Your task to perform on an android device: change the clock display to digital Image 0: 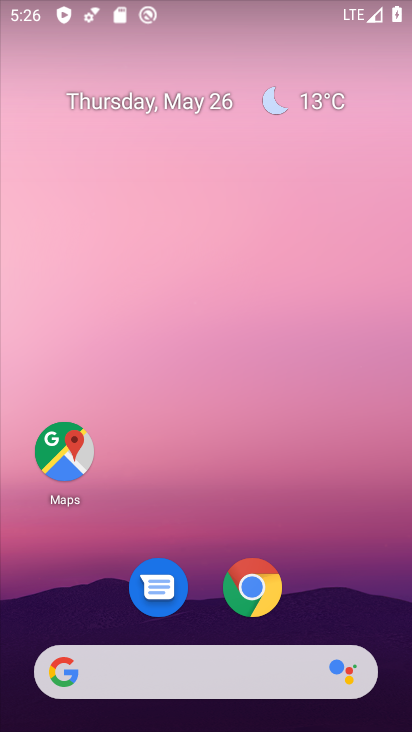
Step 0: drag from (240, 702) to (240, 43)
Your task to perform on an android device: change the clock display to digital Image 1: 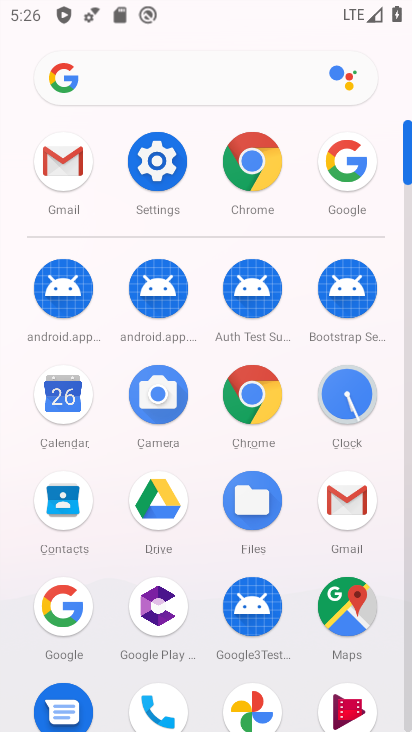
Step 1: click (355, 393)
Your task to perform on an android device: change the clock display to digital Image 2: 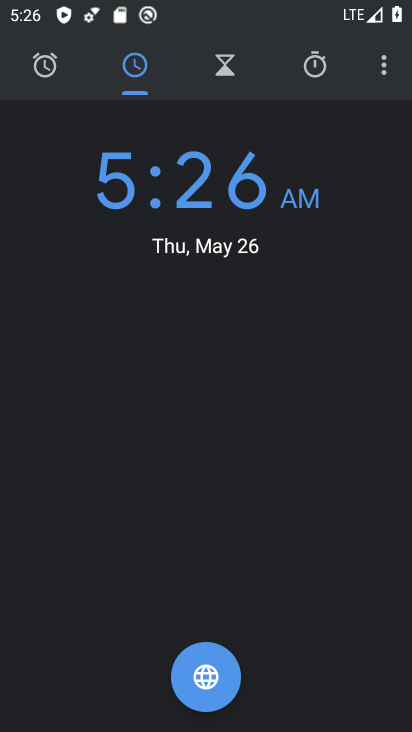
Step 2: click (385, 77)
Your task to perform on an android device: change the clock display to digital Image 3: 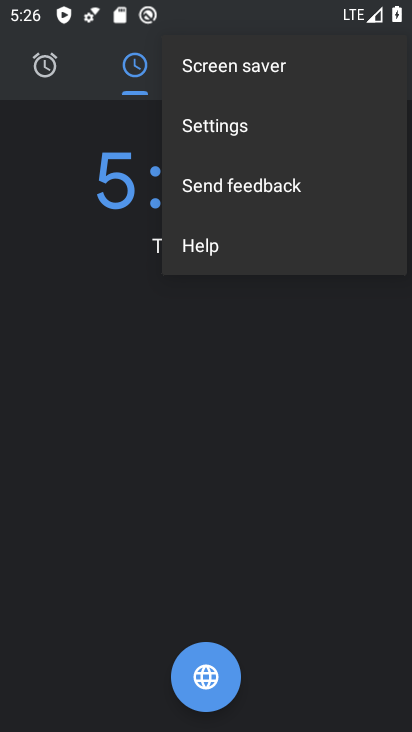
Step 3: click (237, 123)
Your task to perform on an android device: change the clock display to digital Image 4: 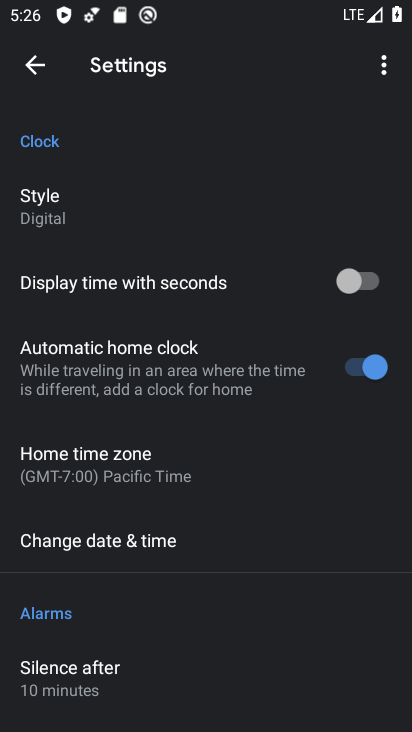
Step 4: task complete